Your task to perform on an android device: Go to sound settings Image 0: 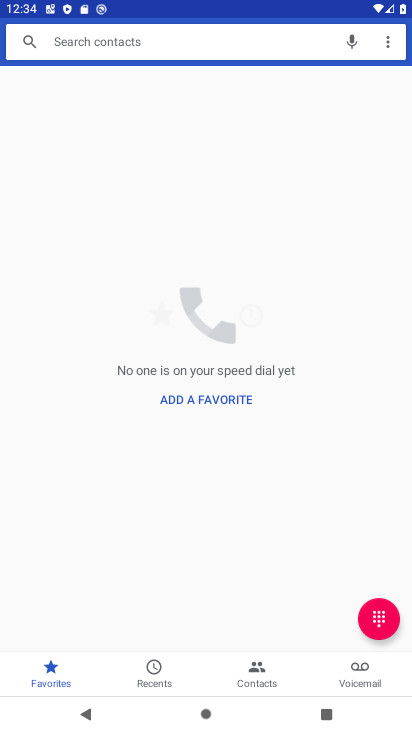
Step 0: click (313, 729)
Your task to perform on an android device: Go to sound settings Image 1: 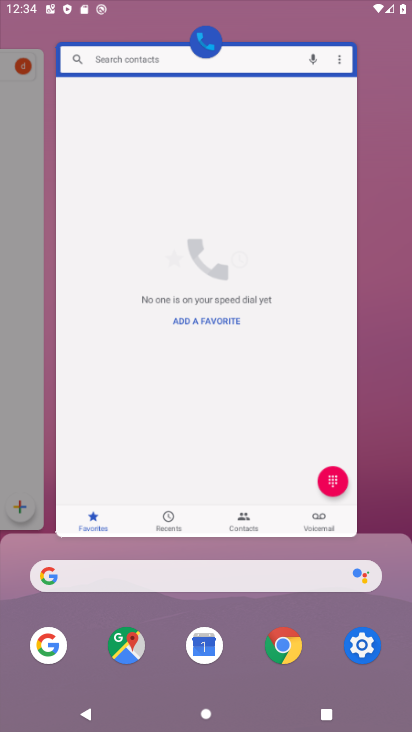
Step 1: click (190, 453)
Your task to perform on an android device: Go to sound settings Image 2: 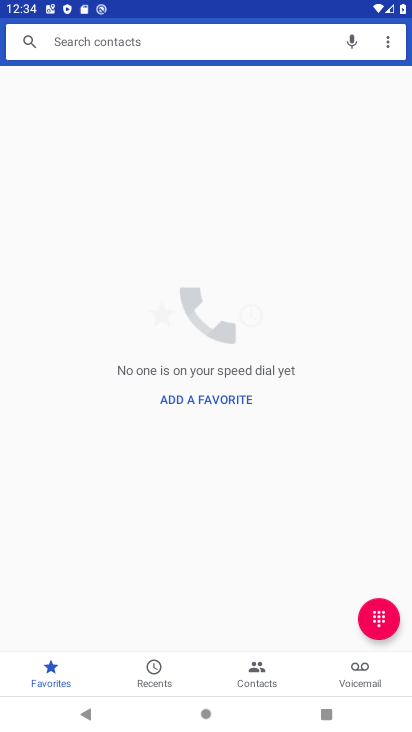
Step 2: press home button
Your task to perform on an android device: Go to sound settings Image 3: 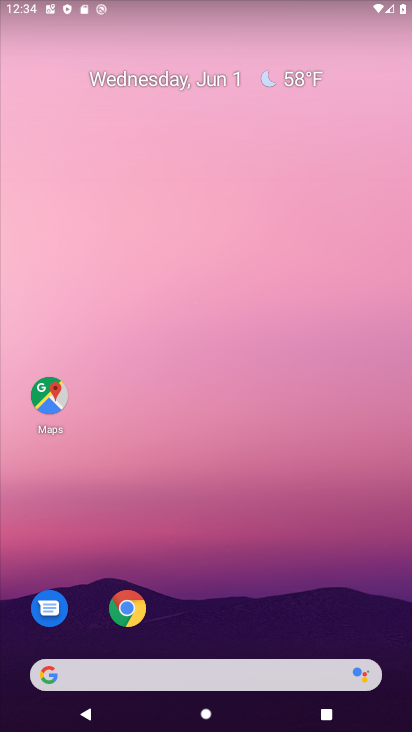
Step 3: drag from (184, 615) to (146, 7)
Your task to perform on an android device: Go to sound settings Image 4: 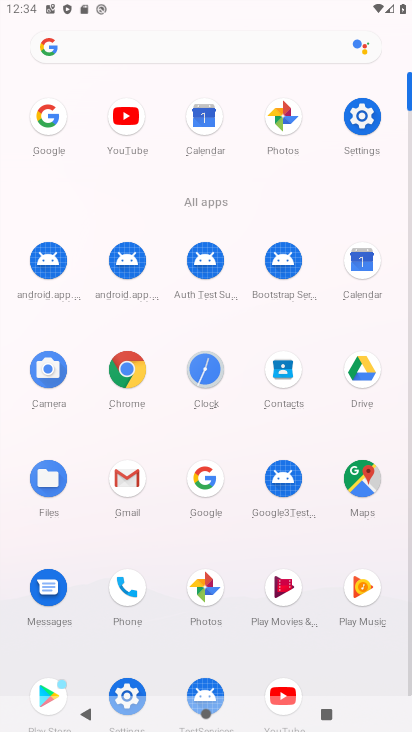
Step 4: click (361, 120)
Your task to perform on an android device: Go to sound settings Image 5: 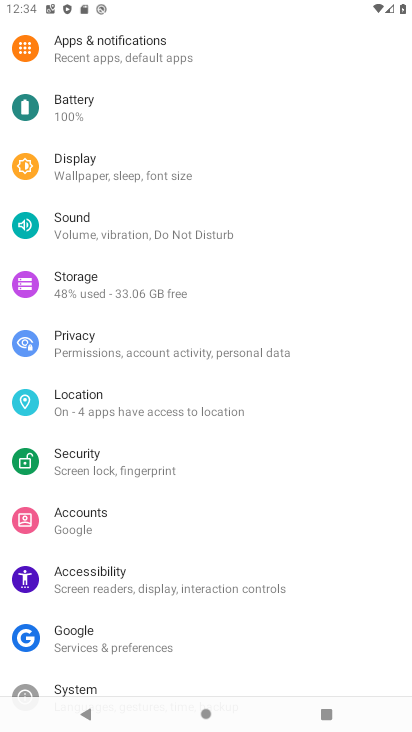
Step 5: click (114, 222)
Your task to perform on an android device: Go to sound settings Image 6: 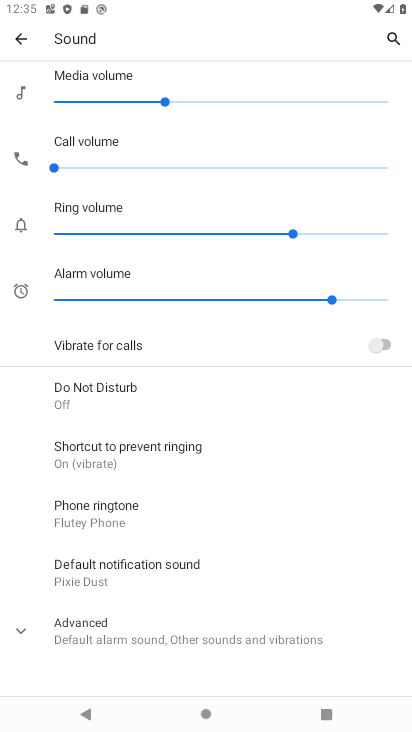
Step 6: task complete